Your task to perform on an android device: change timer sound Image 0: 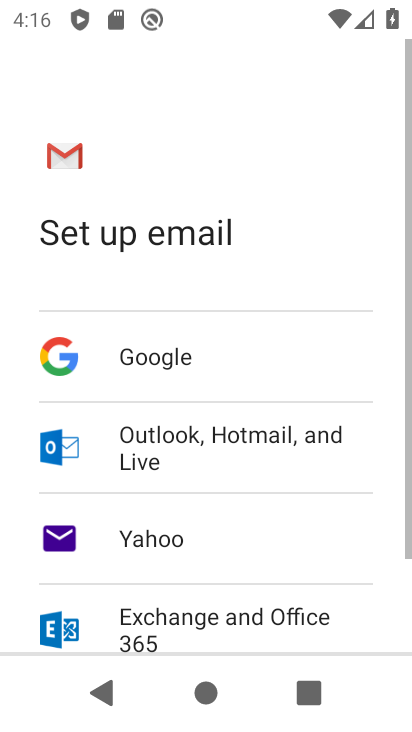
Step 0: press home button
Your task to perform on an android device: change timer sound Image 1: 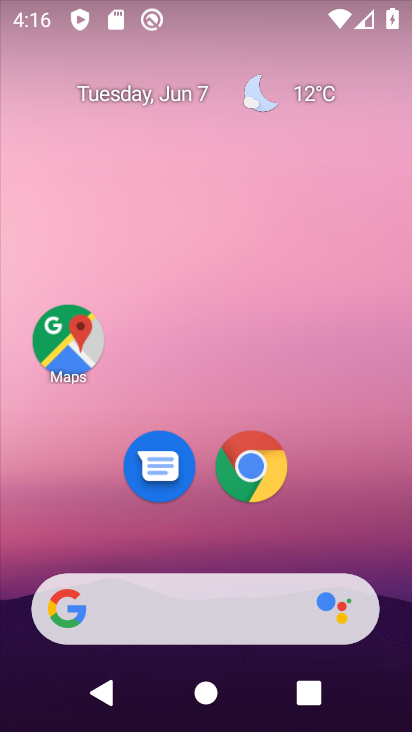
Step 1: drag from (381, 532) to (342, 119)
Your task to perform on an android device: change timer sound Image 2: 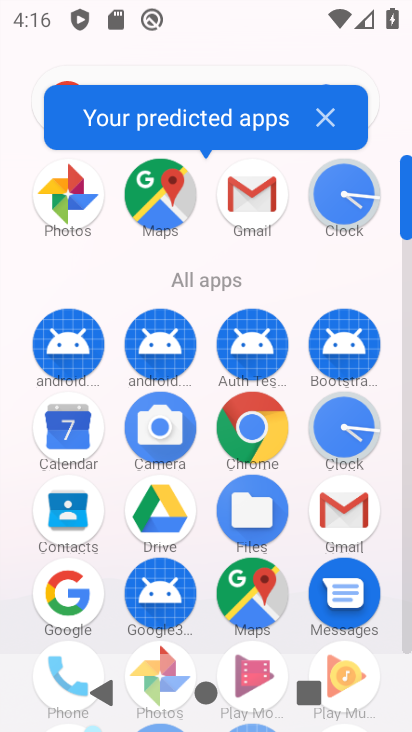
Step 2: click (349, 203)
Your task to perform on an android device: change timer sound Image 3: 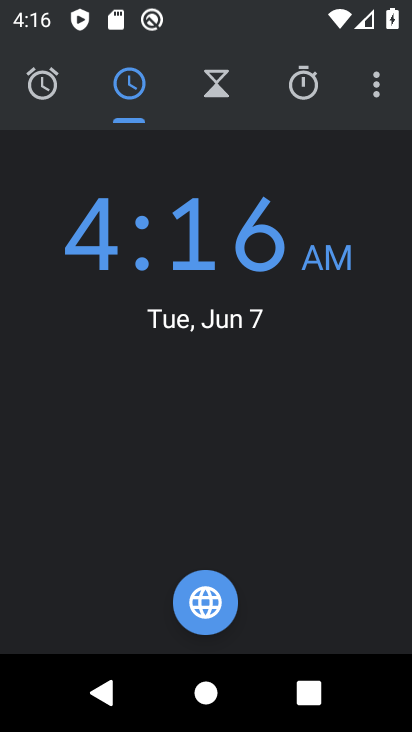
Step 3: click (369, 77)
Your task to perform on an android device: change timer sound Image 4: 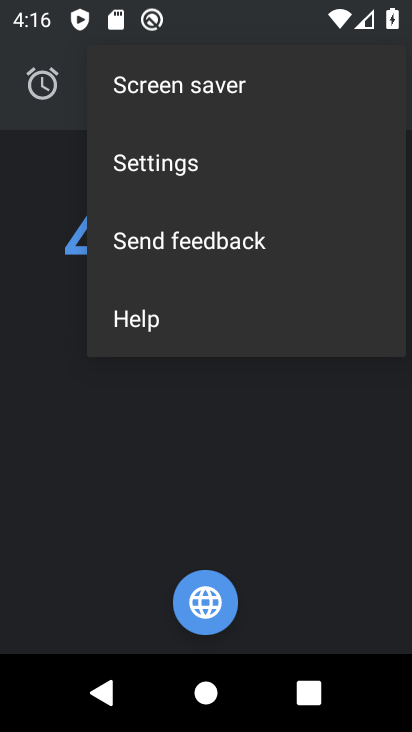
Step 4: click (314, 171)
Your task to perform on an android device: change timer sound Image 5: 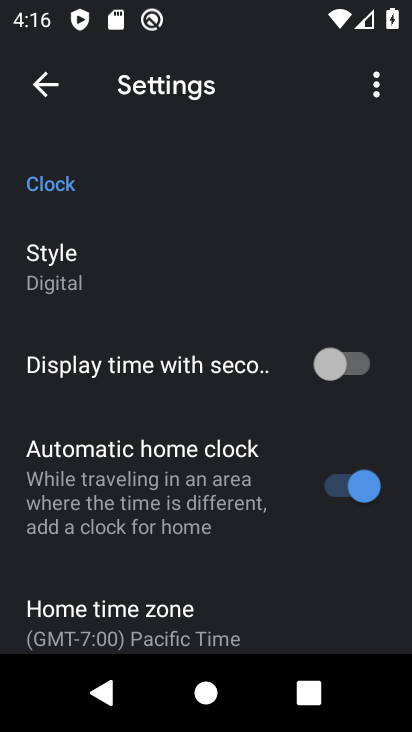
Step 5: drag from (298, 610) to (227, 67)
Your task to perform on an android device: change timer sound Image 6: 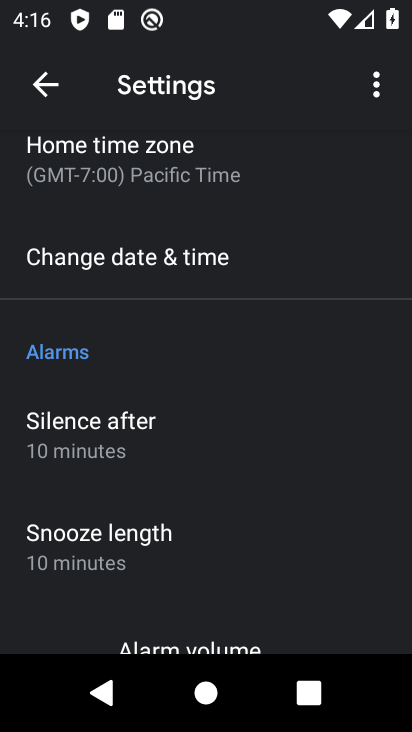
Step 6: drag from (294, 544) to (245, 130)
Your task to perform on an android device: change timer sound Image 7: 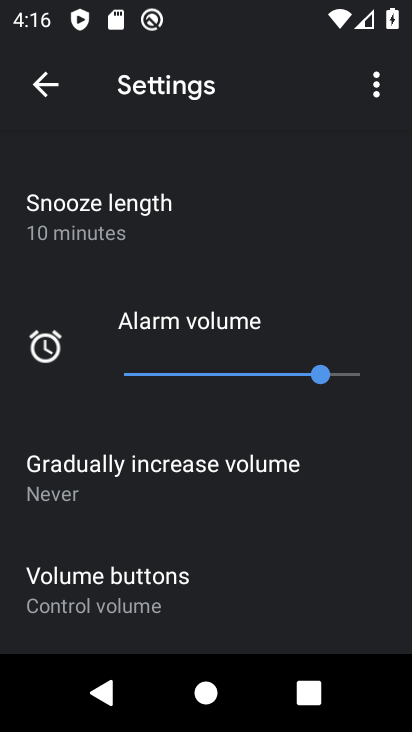
Step 7: drag from (292, 570) to (216, 260)
Your task to perform on an android device: change timer sound Image 8: 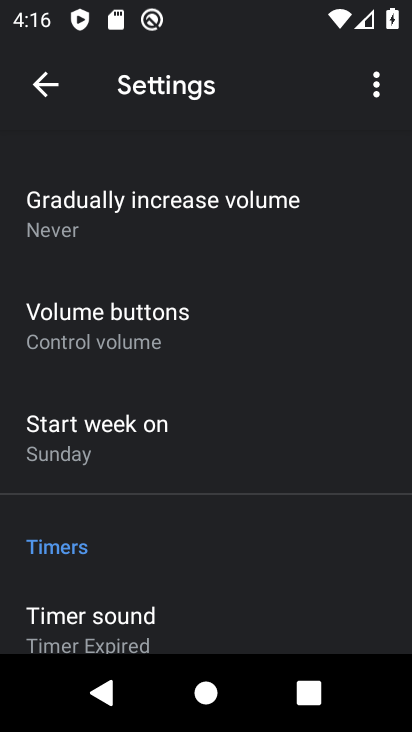
Step 8: click (258, 638)
Your task to perform on an android device: change timer sound Image 9: 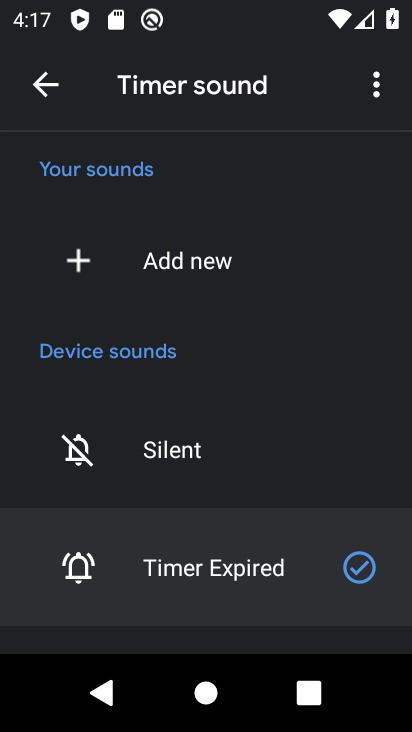
Step 9: drag from (276, 588) to (215, 316)
Your task to perform on an android device: change timer sound Image 10: 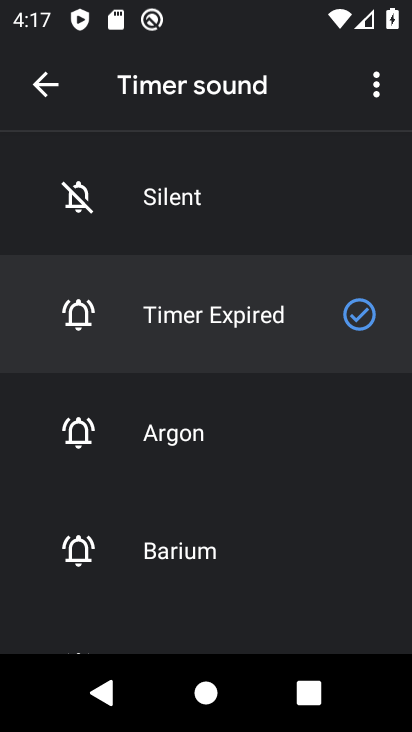
Step 10: click (253, 447)
Your task to perform on an android device: change timer sound Image 11: 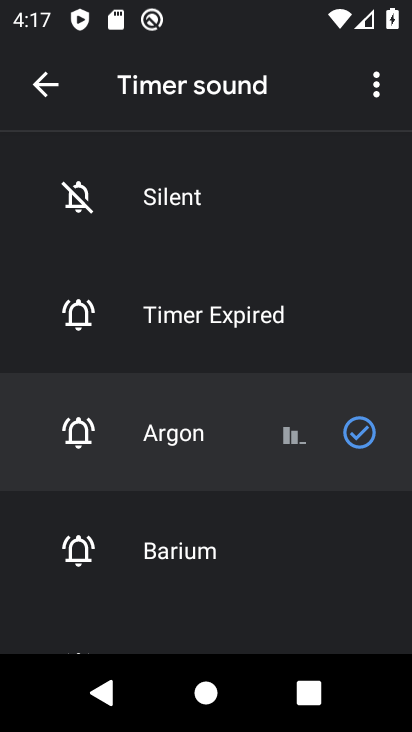
Step 11: task complete